Your task to perform on an android device: Add "usb-c to usb-a" to the cart on ebay, then select checkout. Image 0: 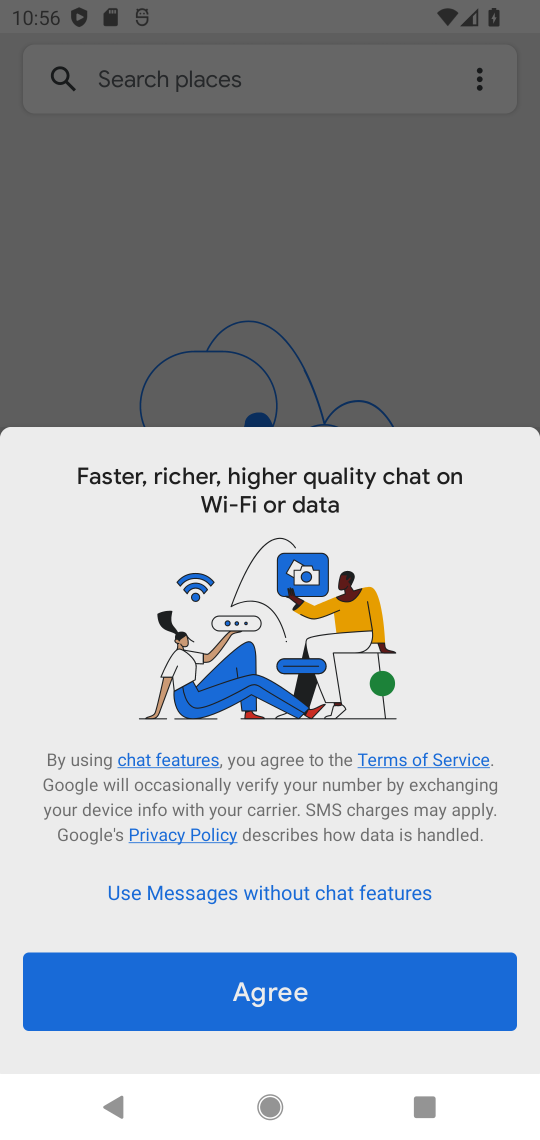
Step 0: press home button
Your task to perform on an android device: Add "usb-c to usb-a" to the cart on ebay, then select checkout. Image 1: 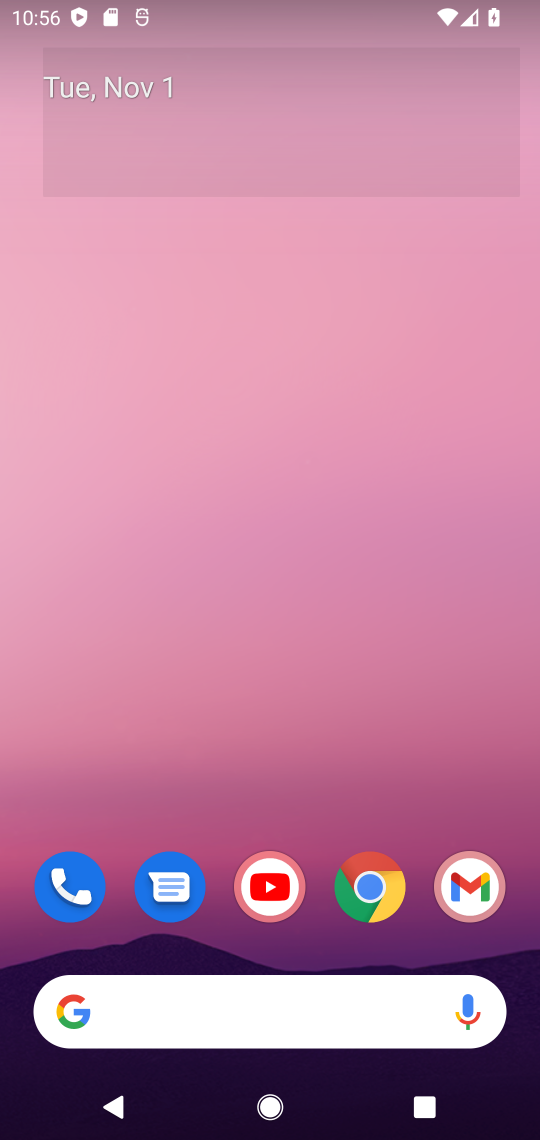
Step 1: click (367, 894)
Your task to perform on an android device: Add "usb-c to usb-a" to the cart on ebay, then select checkout. Image 2: 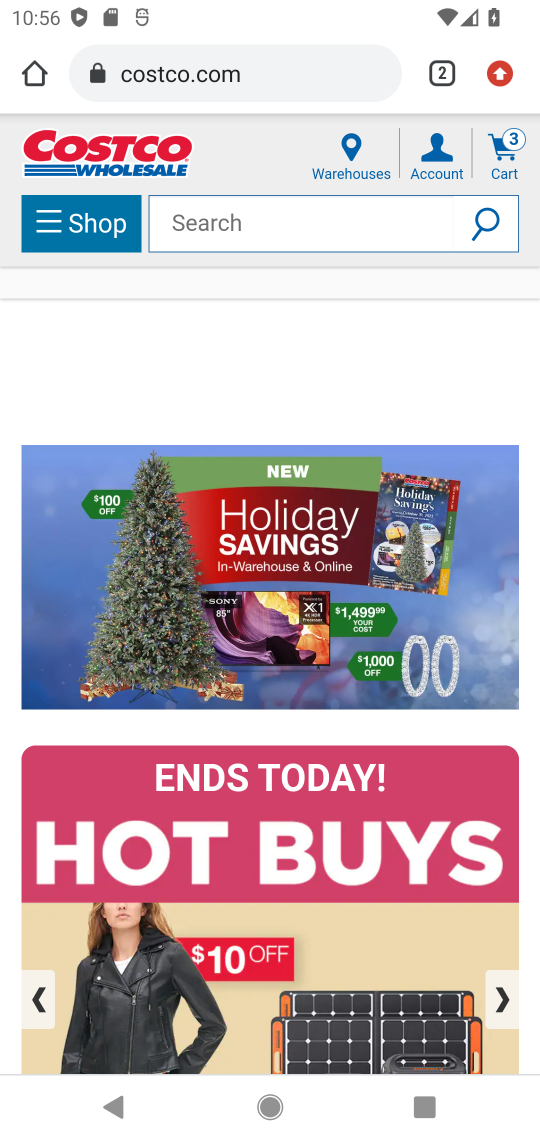
Step 2: click (178, 51)
Your task to perform on an android device: Add "usb-c to usb-a" to the cart on ebay, then select checkout. Image 3: 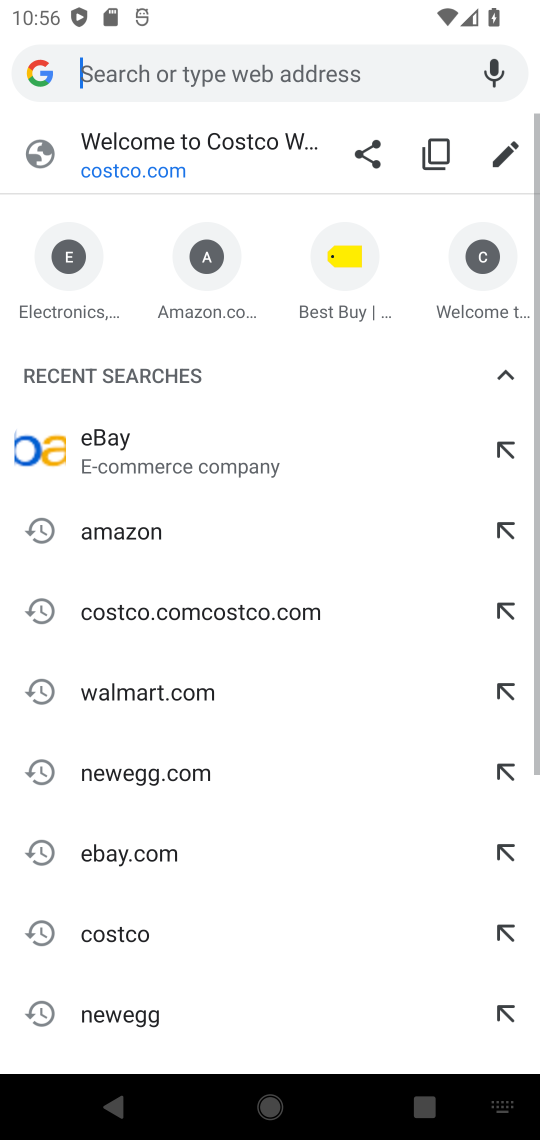
Step 3: click (146, 464)
Your task to perform on an android device: Add "usb-c to usb-a" to the cart on ebay, then select checkout. Image 4: 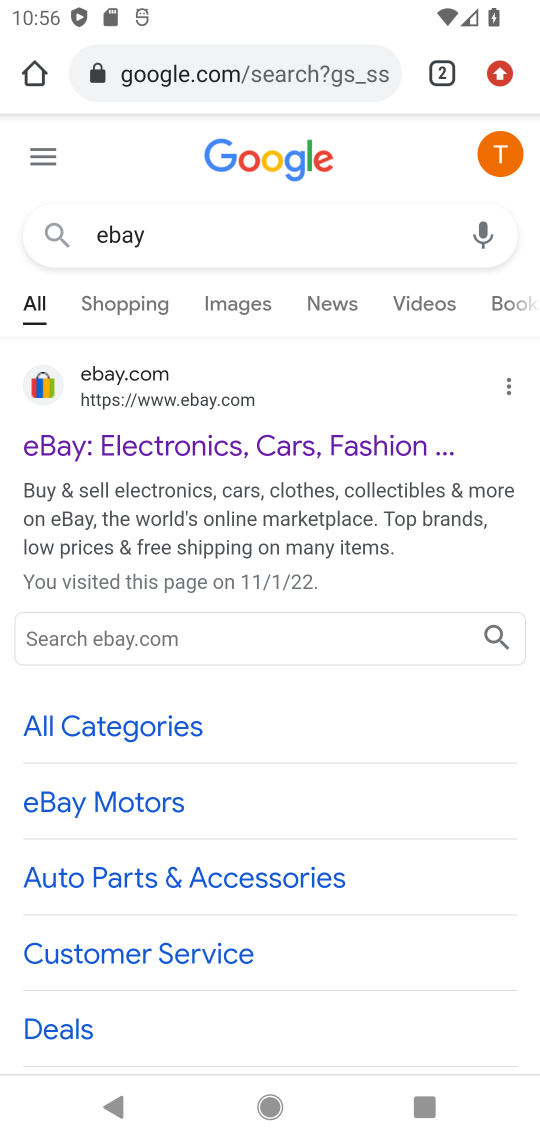
Step 4: click (159, 460)
Your task to perform on an android device: Add "usb-c to usb-a" to the cart on ebay, then select checkout. Image 5: 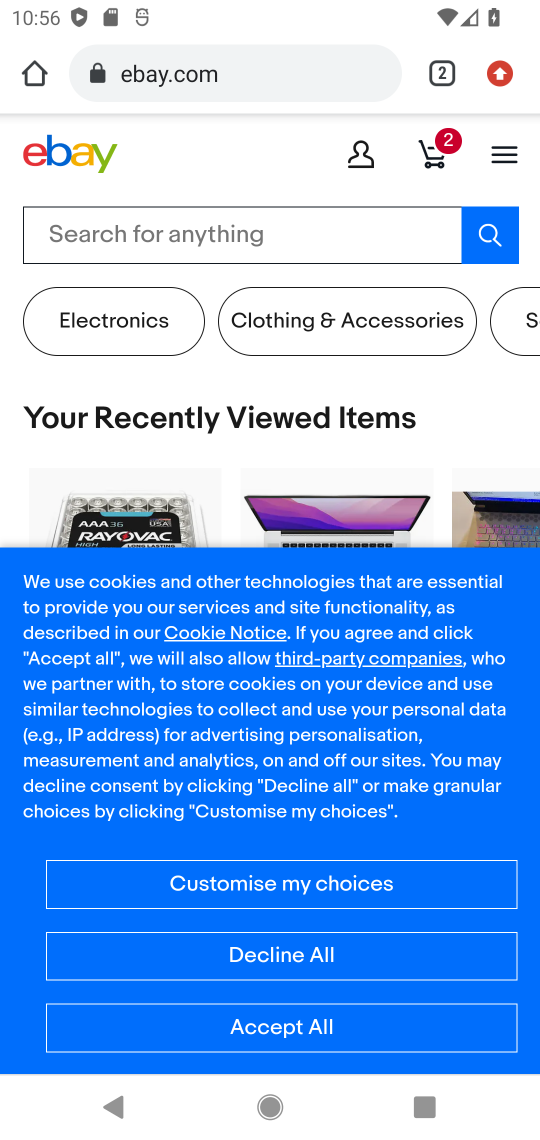
Step 5: click (226, 235)
Your task to perform on an android device: Add "usb-c to usb-a" to the cart on ebay, then select checkout. Image 6: 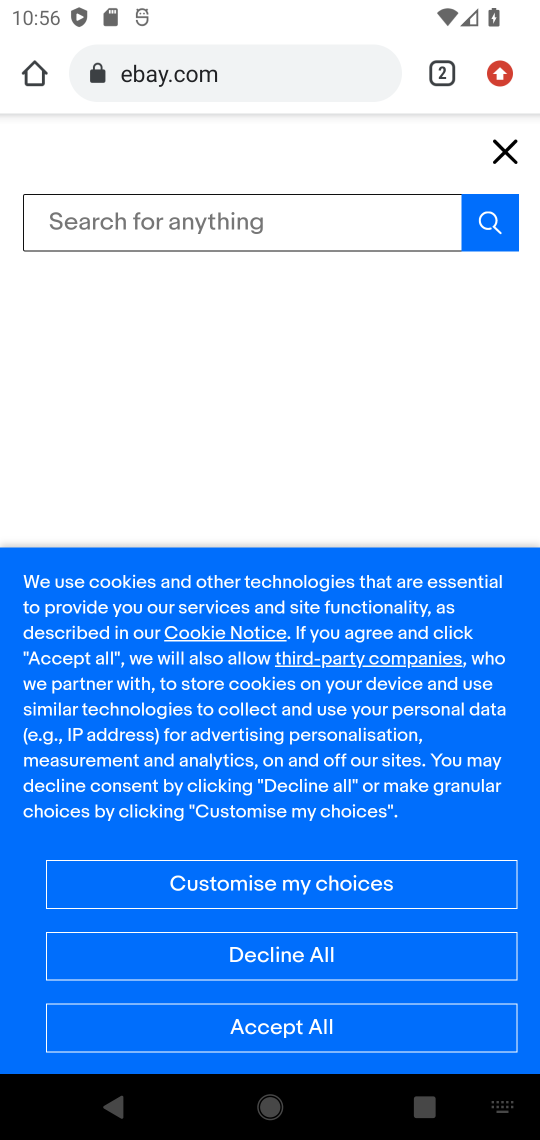
Step 6: type "usb-c to usb-a"
Your task to perform on an android device: Add "usb-c to usb-a" to the cart on ebay, then select checkout. Image 7: 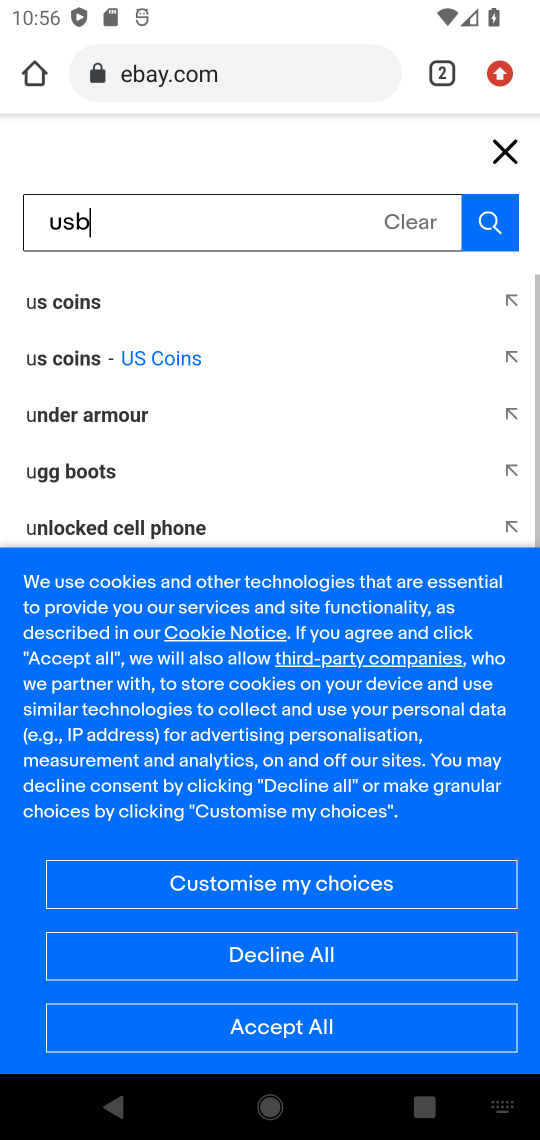
Step 7: press enter
Your task to perform on an android device: Add "usb-c to usb-a" to the cart on ebay, then select checkout. Image 8: 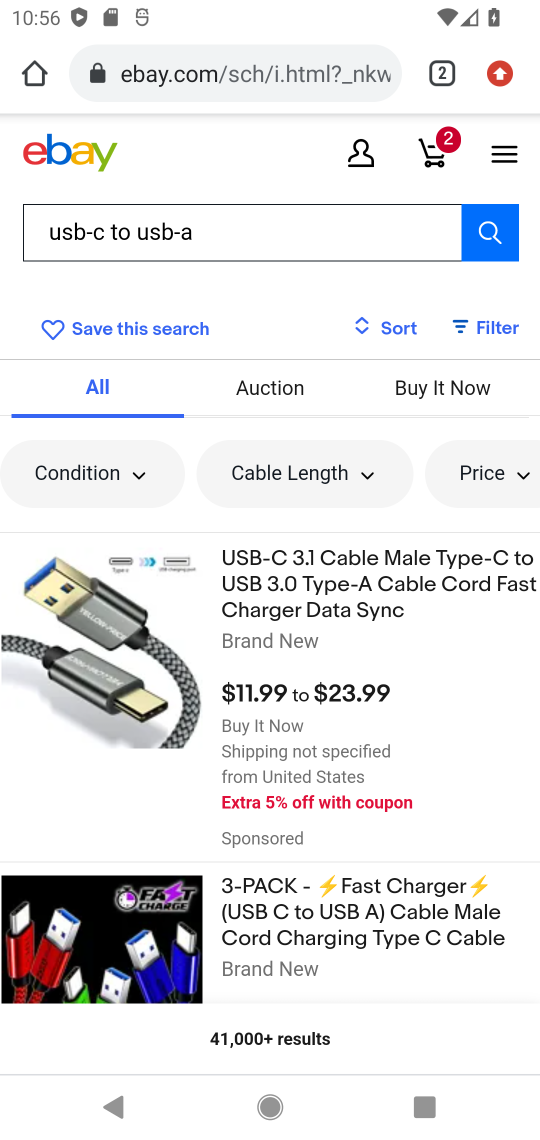
Step 8: click (309, 648)
Your task to perform on an android device: Add "usb-c to usb-a" to the cart on ebay, then select checkout. Image 9: 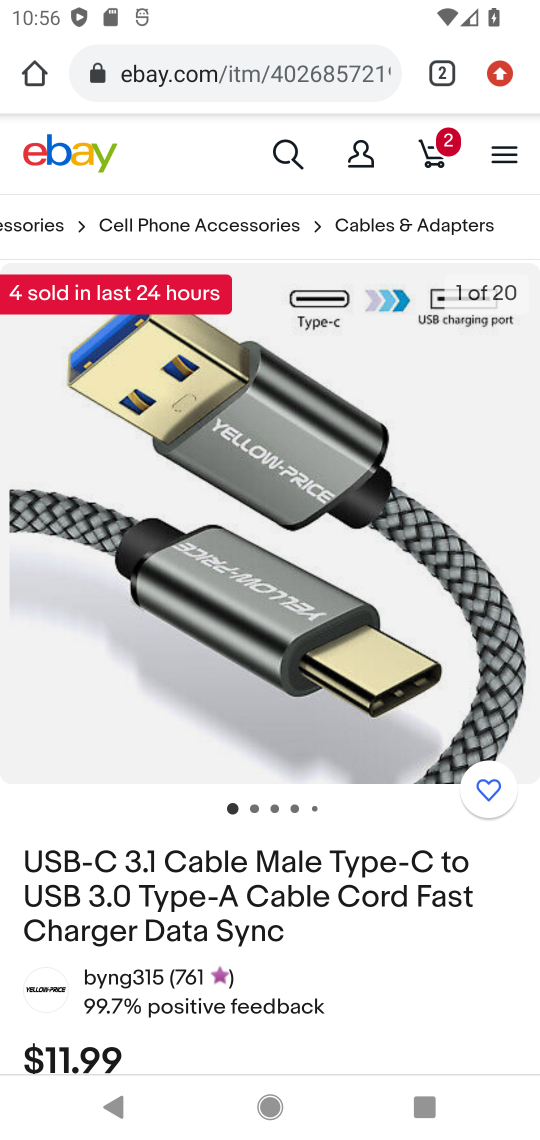
Step 9: drag from (377, 785) to (346, 443)
Your task to perform on an android device: Add "usb-c to usb-a" to the cart on ebay, then select checkout. Image 10: 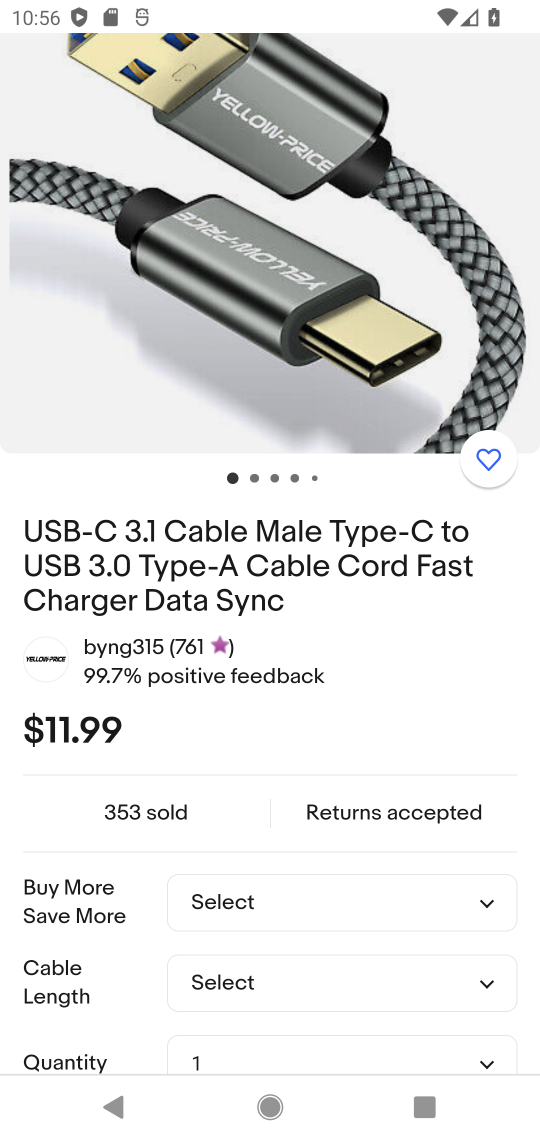
Step 10: drag from (322, 831) to (295, 396)
Your task to perform on an android device: Add "usb-c to usb-a" to the cart on ebay, then select checkout. Image 11: 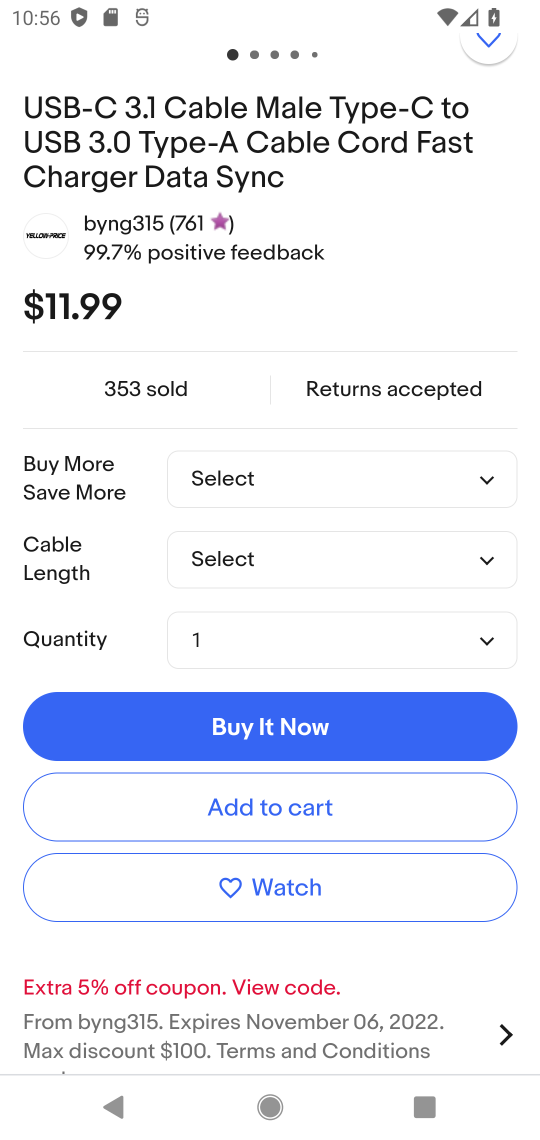
Step 11: click (338, 821)
Your task to perform on an android device: Add "usb-c to usb-a" to the cart on ebay, then select checkout. Image 12: 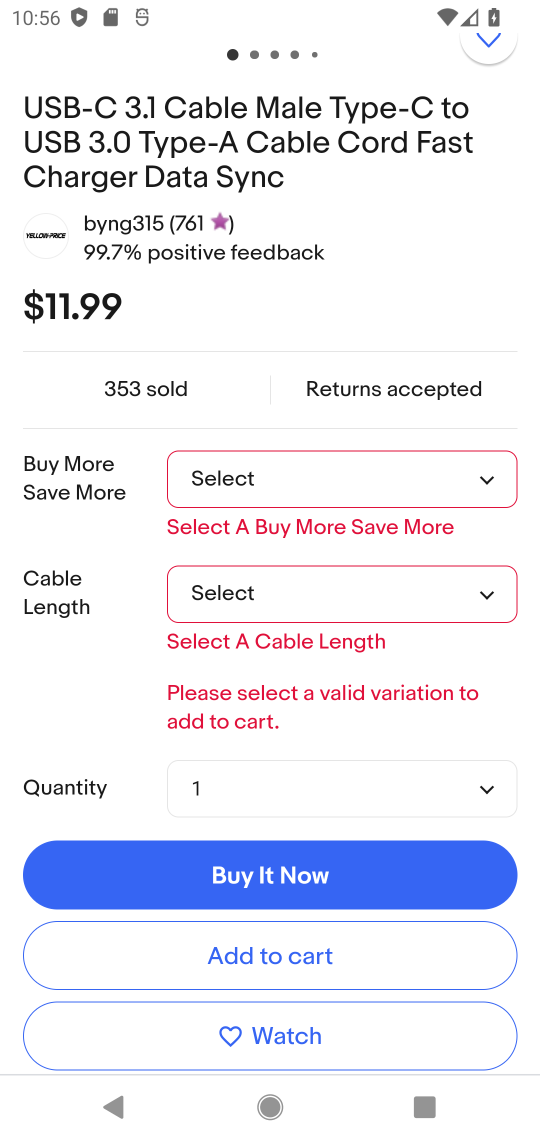
Step 12: click (339, 964)
Your task to perform on an android device: Add "usb-c to usb-a" to the cart on ebay, then select checkout. Image 13: 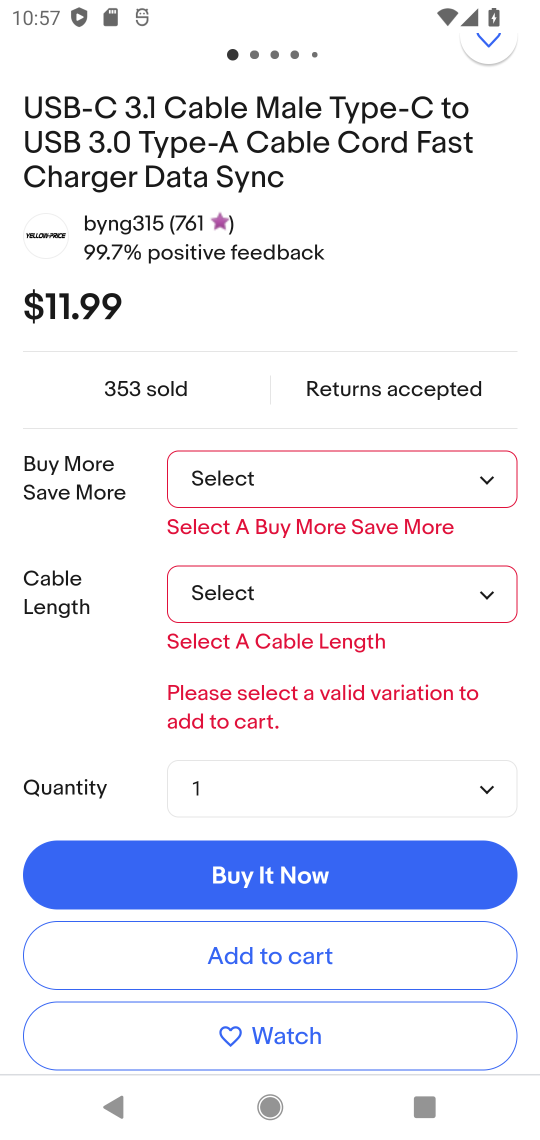
Step 13: click (207, 942)
Your task to perform on an android device: Add "usb-c to usb-a" to the cart on ebay, then select checkout. Image 14: 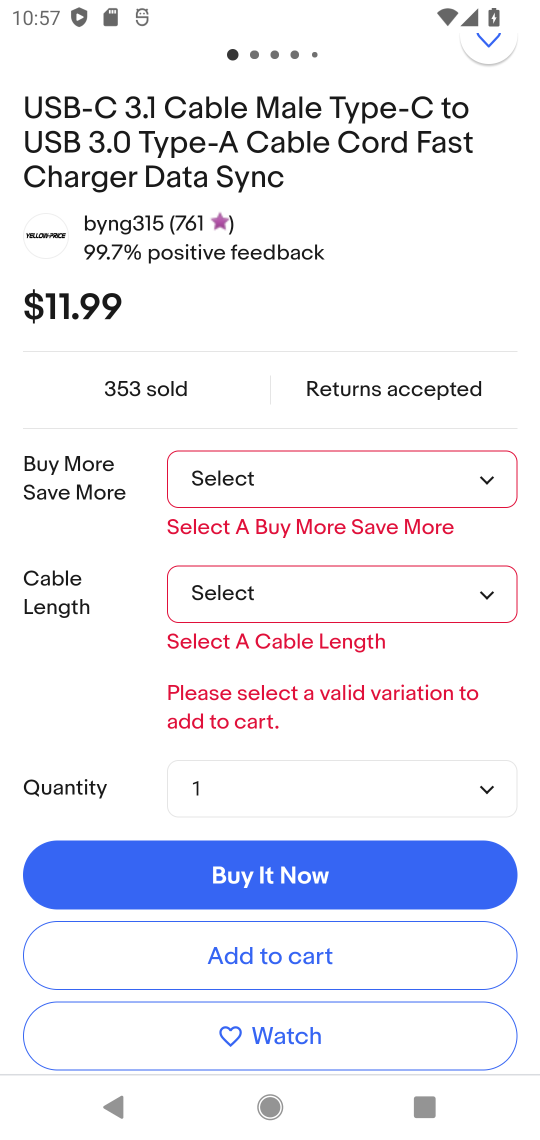
Step 14: click (284, 951)
Your task to perform on an android device: Add "usb-c to usb-a" to the cart on ebay, then select checkout. Image 15: 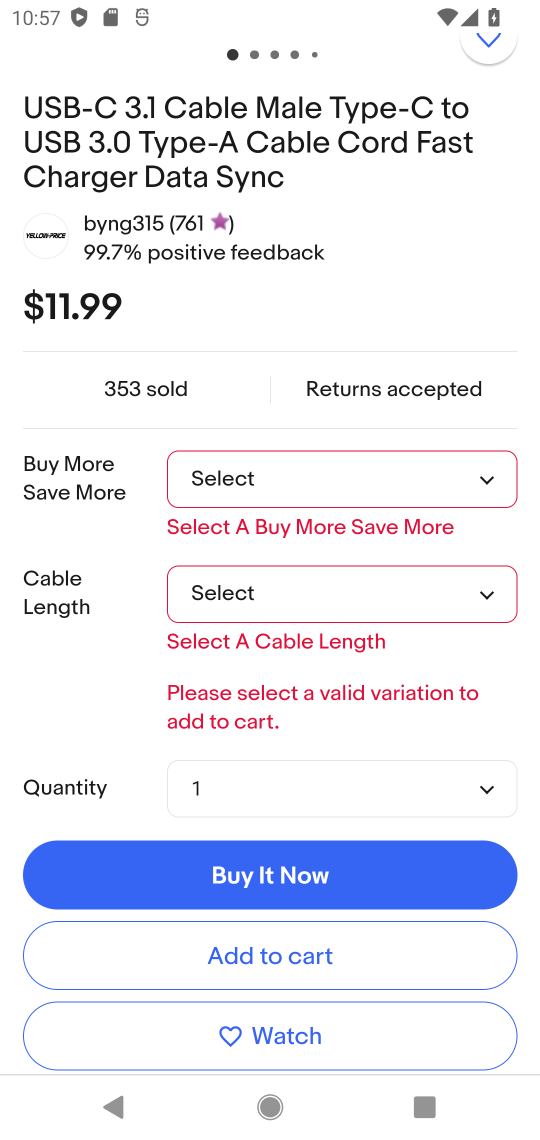
Step 15: drag from (434, 379) to (501, 604)
Your task to perform on an android device: Add "usb-c to usb-a" to the cart on ebay, then select checkout. Image 16: 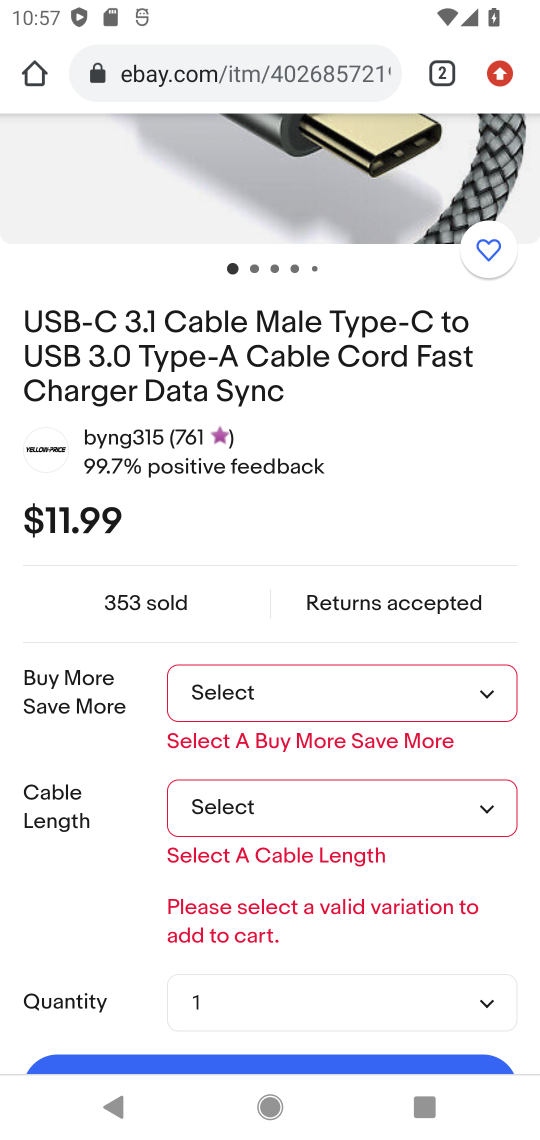
Step 16: drag from (360, 169) to (537, 797)
Your task to perform on an android device: Add "usb-c to usb-a" to the cart on ebay, then select checkout. Image 17: 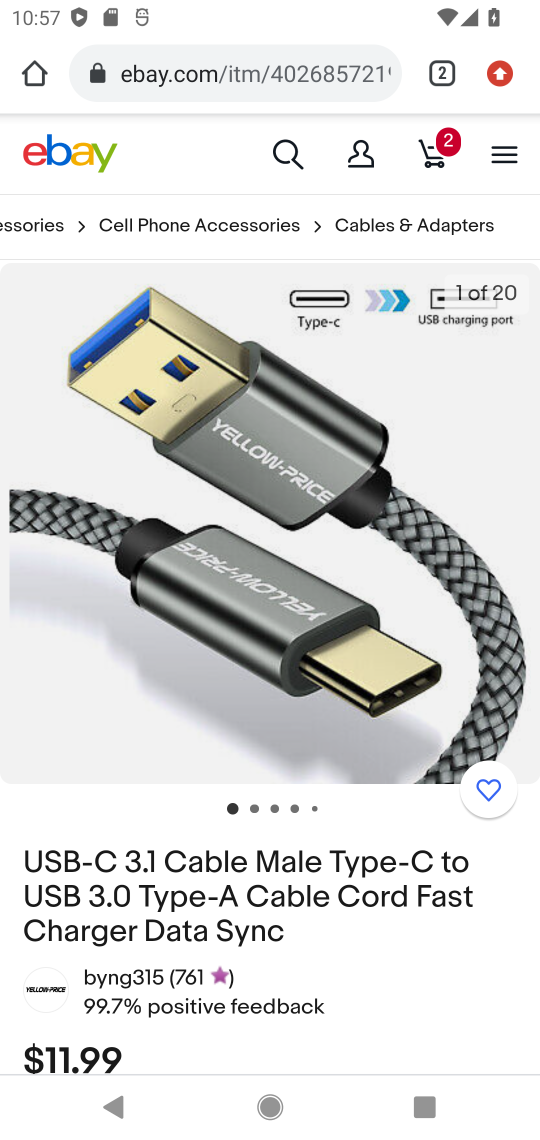
Step 17: click (440, 161)
Your task to perform on an android device: Add "usb-c to usb-a" to the cart on ebay, then select checkout. Image 18: 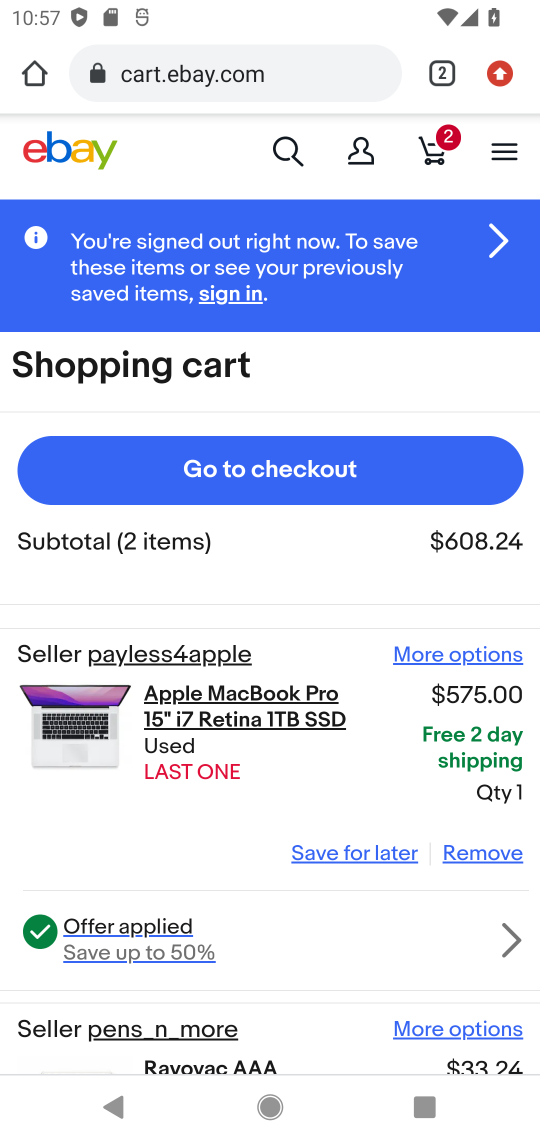
Step 18: press back button
Your task to perform on an android device: Add "usb-c to usb-a" to the cart on ebay, then select checkout. Image 19: 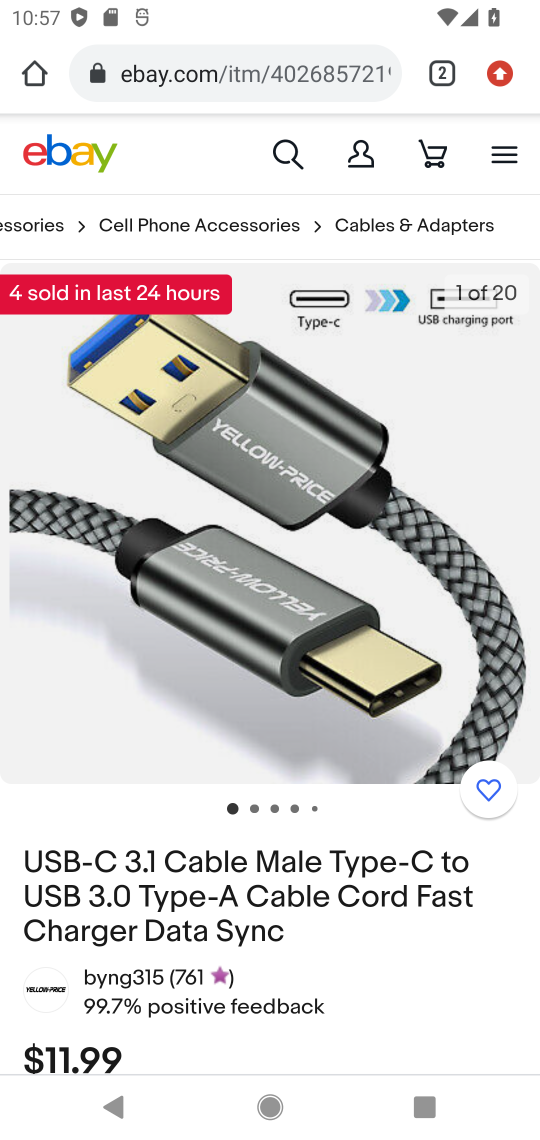
Step 19: drag from (340, 758) to (279, 338)
Your task to perform on an android device: Add "usb-c to usb-a" to the cart on ebay, then select checkout. Image 20: 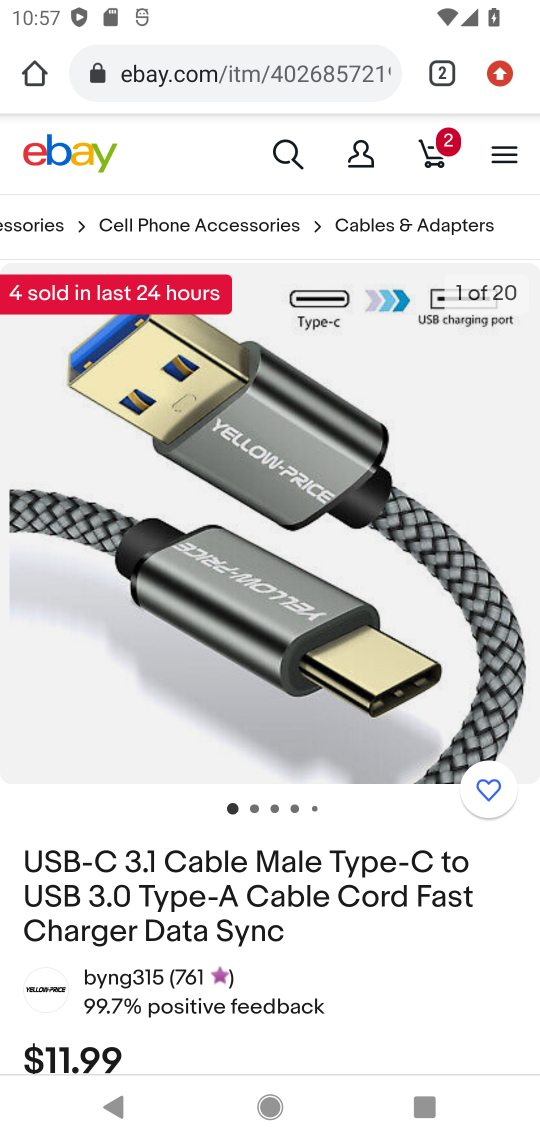
Step 20: drag from (350, 925) to (294, 570)
Your task to perform on an android device: Add "usb-c to usb-a" to the cart on ebay, then select checkout. Image 21: 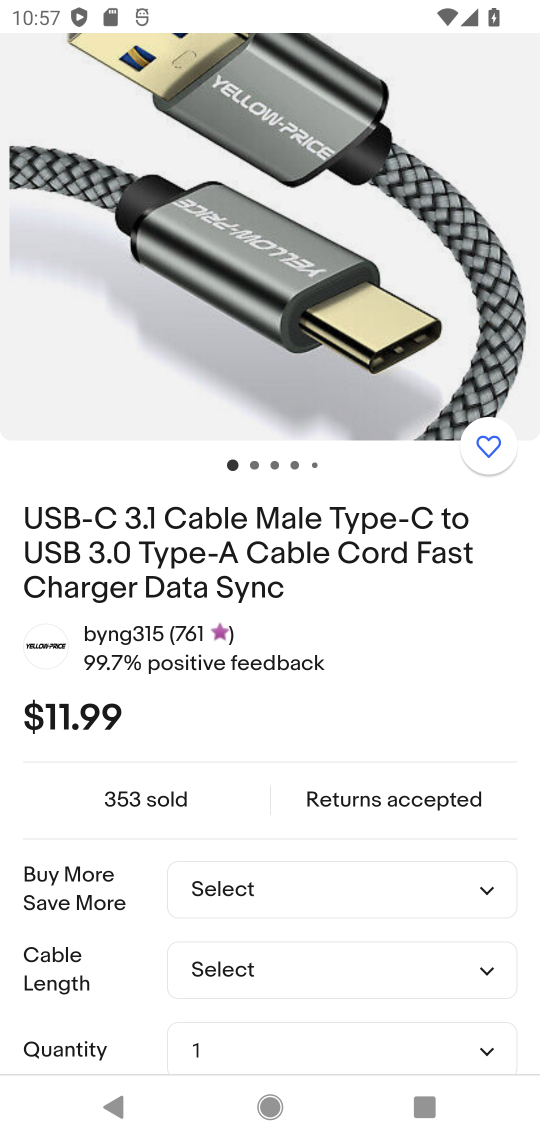
Step 21: drag from (338, 906) to (248, 496)
Your task to perform on an android device: Add "usb-c to usb-a" to the cart on ebay, then select checkout. Image 22: 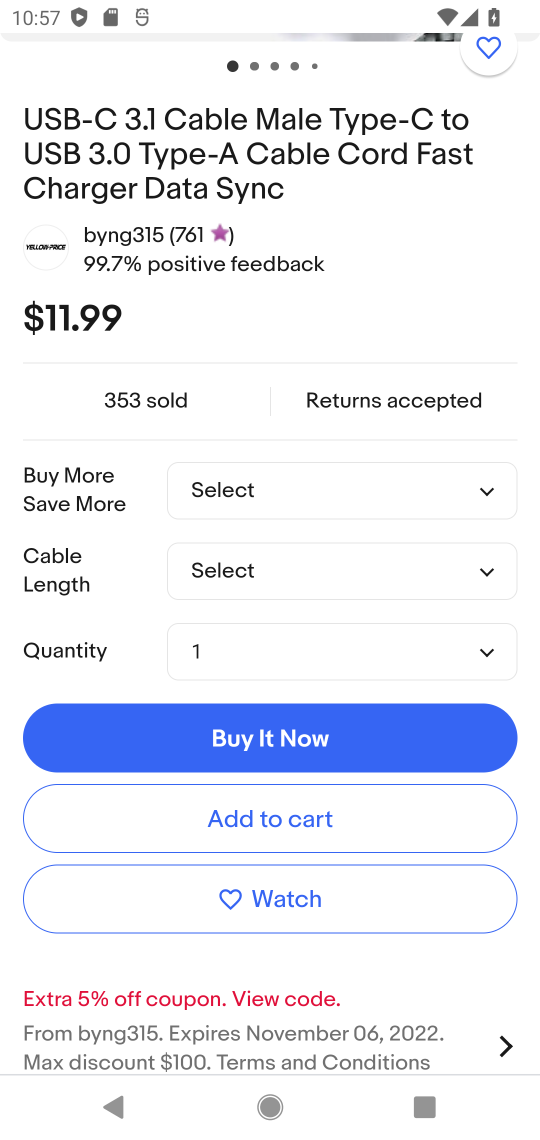
Step 22: click (237, 810)
Your task to perform on an android device: Add "usb-c to usb-a" to the cart on ebay, then select checkout. Image 23: 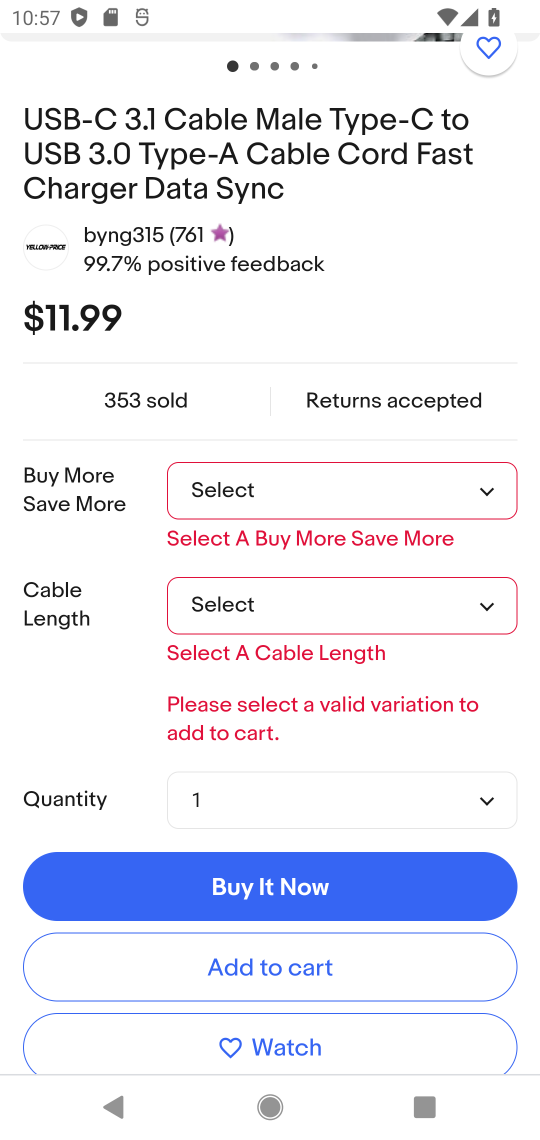
Step 23: click (301, 964)
Your task to perform on an android device: Add "usb-c to usb-a" to the cart on ebay, then select checkout. Image 24: 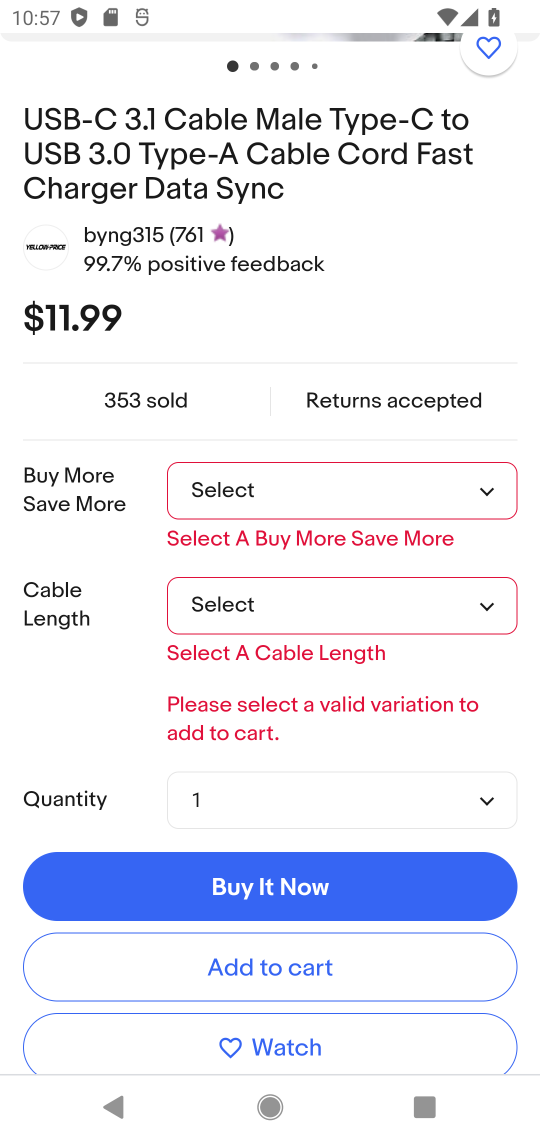
Step 24: task complete